Your task to perform on an android device: Open Google Image 0: 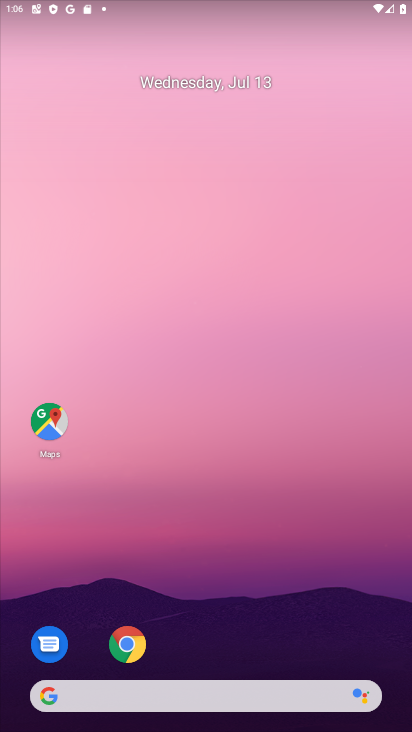
Step 0: click (135, 660)
Your task to perform on an android device: Open Google Image 1: 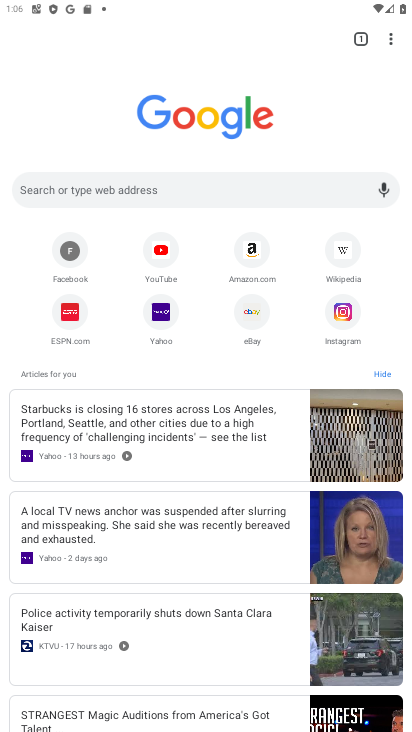
Step 1: task complete